Your task to perform on an android device: change the clock display to digital Image 0: 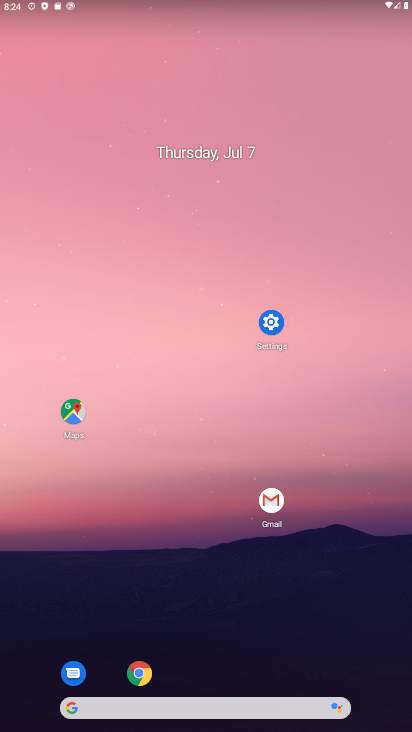
Step 0: drag from (394, 419) to (378, 139)
Your task to perform on an android device: change the clock display to digital Image 1: 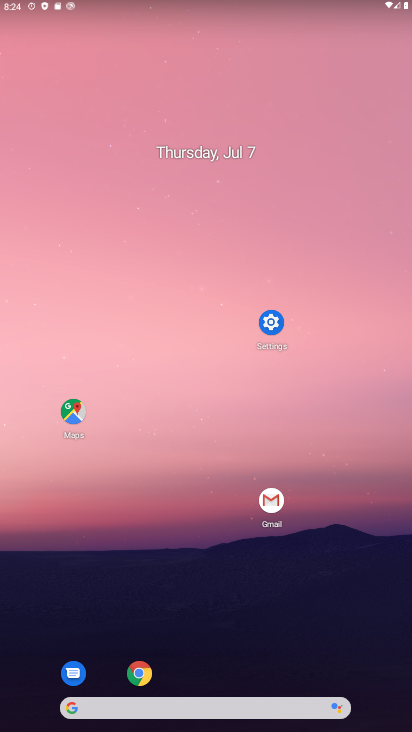
Step 1: drag from (363, 713) to (250, 50)
Your task to perform on an android device: change the clock display to digital Image 2: 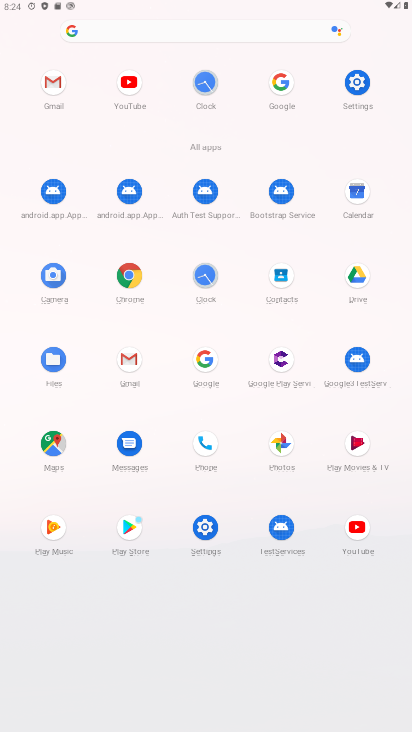
Step 2: click (205, 277)
Your task to perform on an android device: change the clock display to digital Image 3: 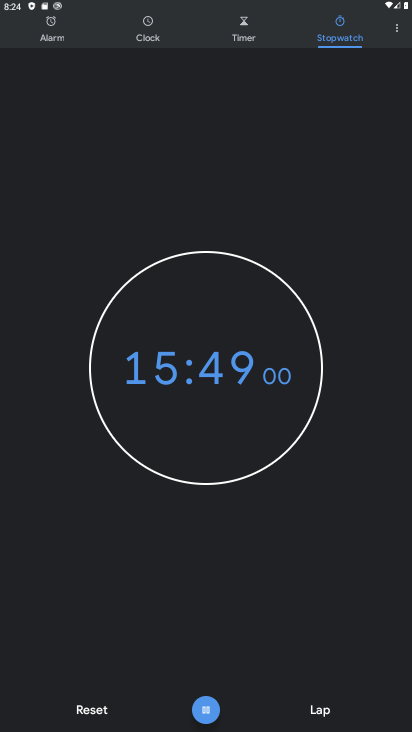
Step 3: click (398, 25)
Your task to perform on an android device: change the clock display to digital Image 4: 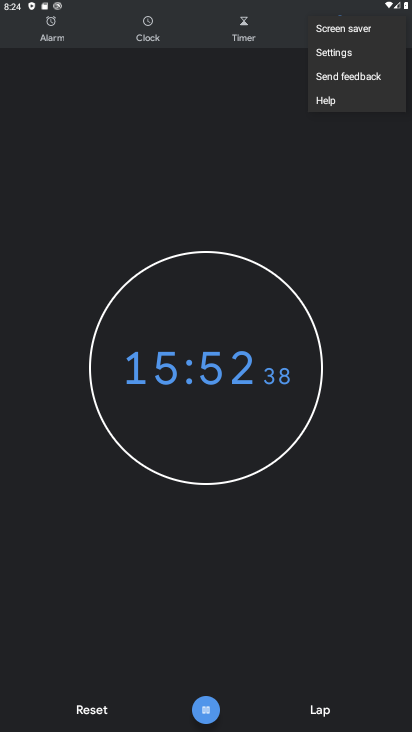
Step 4: click (341, 43)
Your task to perform on an android device: change the clock display to digital Image 5: 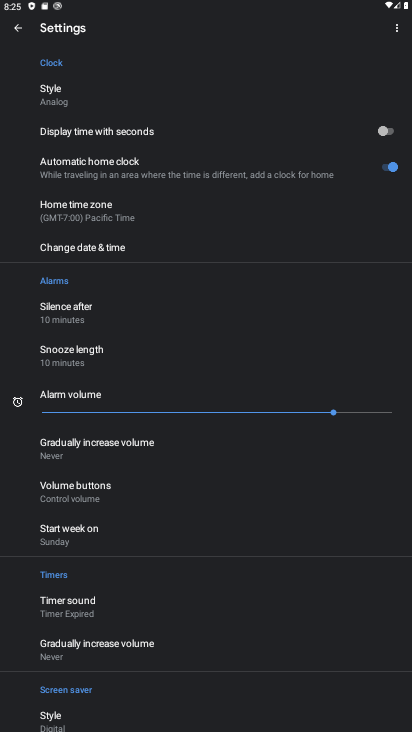
Step 5: click (66, 94)
Your task to perform on an android device: change the clock display to digital Image 6: 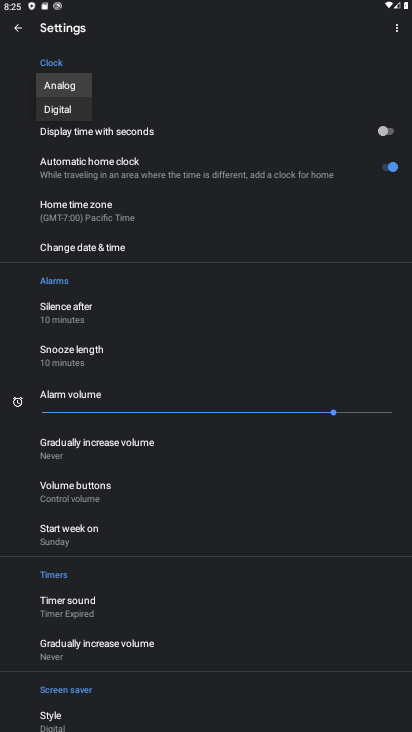
Step 6: click (60, 104)
Your task to perform on an android device: change the clock display to digital Image 7: 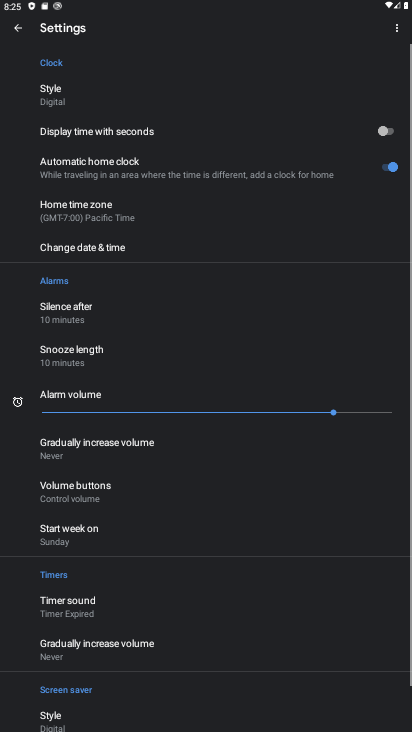
Step 7: task complete